Your task to perform on an android device: turn off picture-in-picture Image 0: 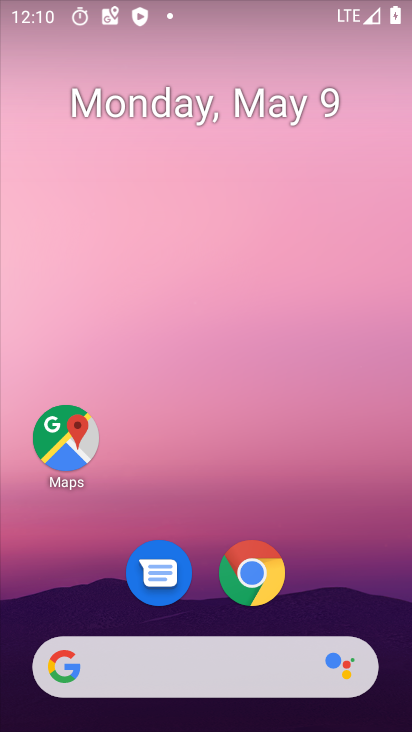
Step 0: drag from (342, 579) to (275, 0)
Your task to perform on an android device: turn off picture-in-picture Image 1: 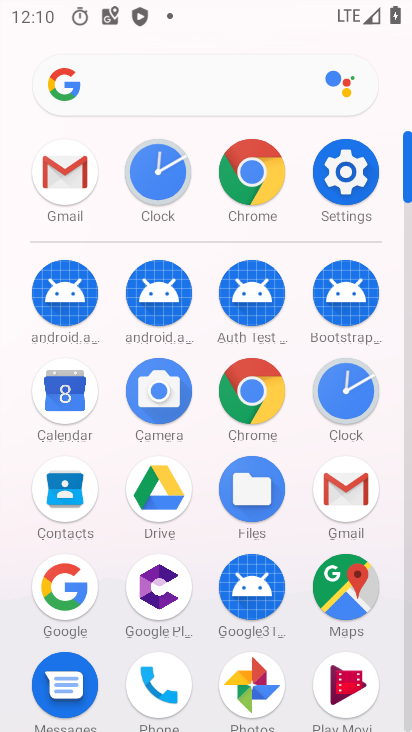
Step 1: drag from (16, 503) to (6, 301)
Your task to perform on an android device: turn off picture-in-picture Image 2: 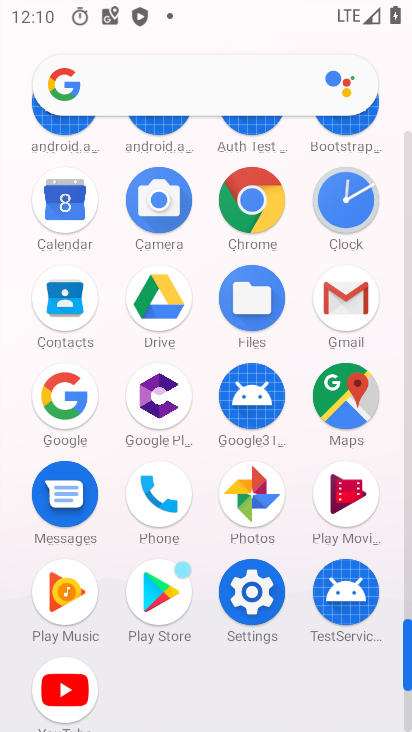
Step 2: click (253, 594)
Your task to perform on an android device: turn off picture-in-picture Image 3: 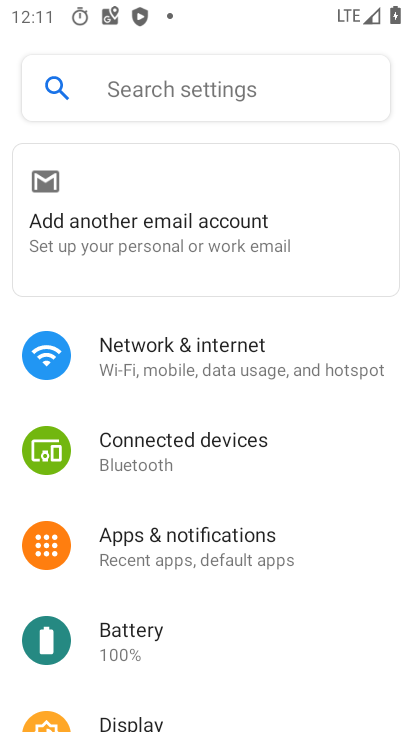
Step 3: click (219, 545)
Your task to perform on an android device: turn off picture-in-picture Image 4: 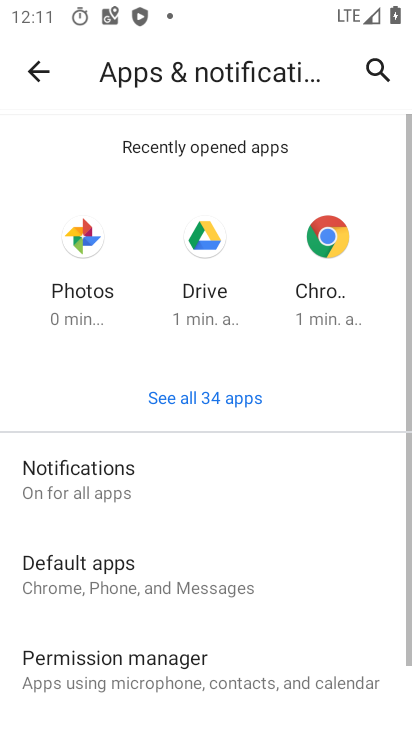
Step 4: drag from (203, 641) to (191, 112)
Your task to perform on an android device: turn off picture-in-picture Image 5: 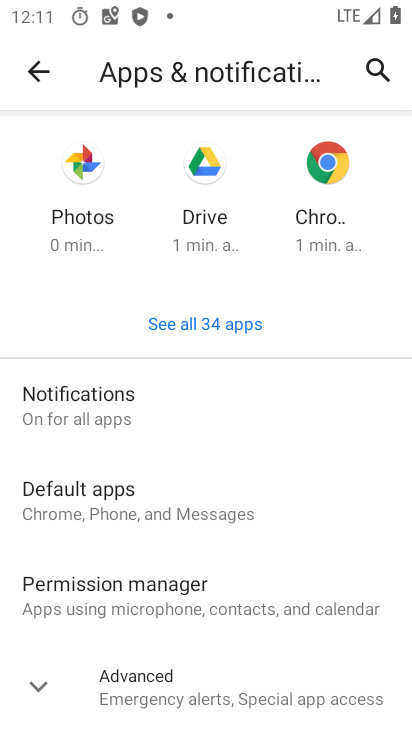
Step 5: click (171, 705)
Your task to perform on an android device: turn off picture-in-picture Image 6: 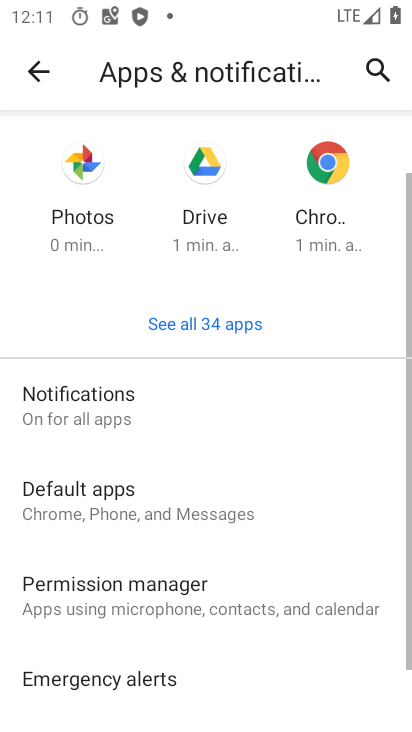
Step 6: drag from (238, 639) to (216, 138)
Your task to perform on an android device: turn off picture-in-picture Image 7: 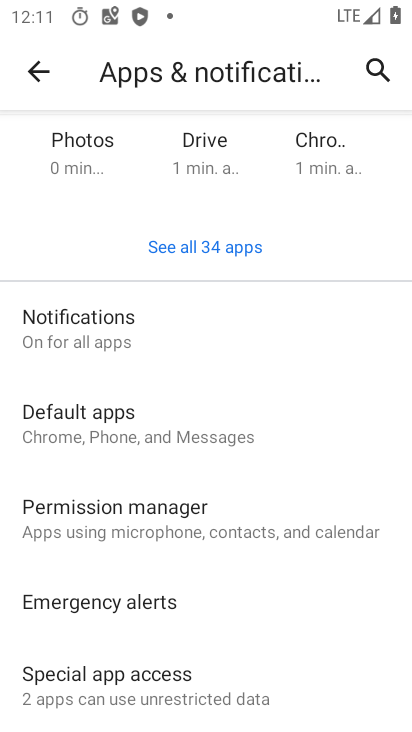
Step 7: click (152, 686)
Your task to perform on an android device: turn off picture-in-picture Image 8: 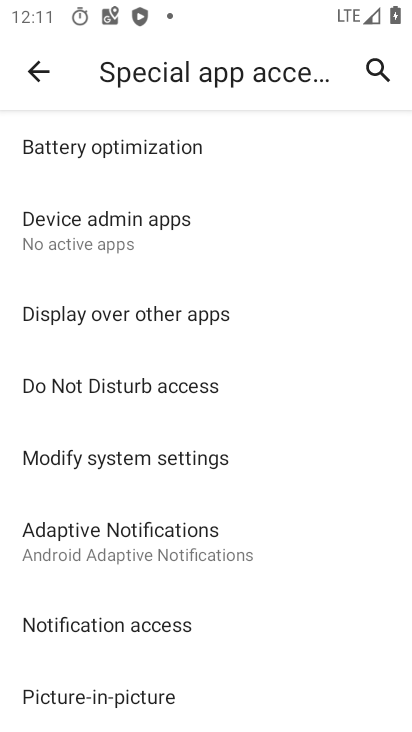
Step 8: click (121, 701)
Your task to perform on an android device: turn off picture-in-picture Image 9: 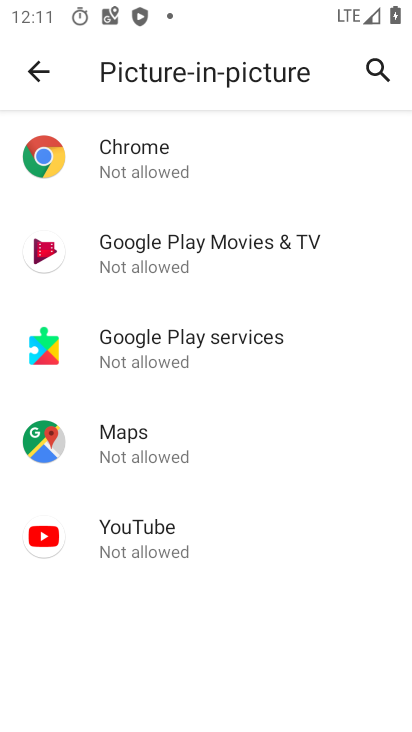
Step 9: task complete